Your task to perform on an android device: set default search engine in the chrome app Image 0: 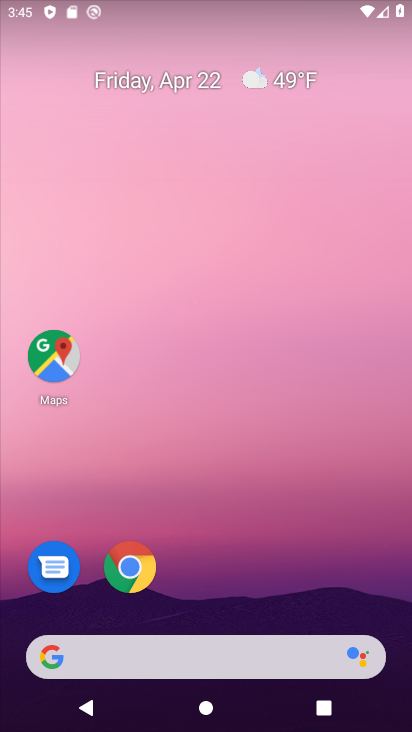
Step 0: click (130, 563)
Your task to perform on an android device: set default search engine in the chrome app Image 1: 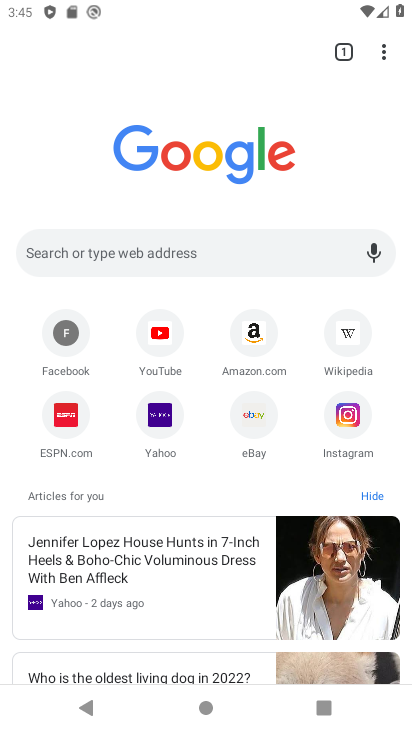
Step 1: drag from (386, 55) to (243, 500)
Your task to perform on an android device: set default search engine in the chrome app Image 2: 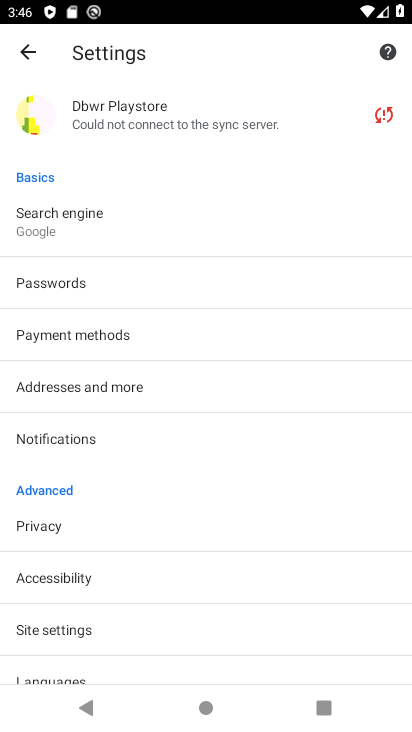
Step 2: click (40, 217)
Your task to perform on an android device: set default search engine in the chrome app Image 3: 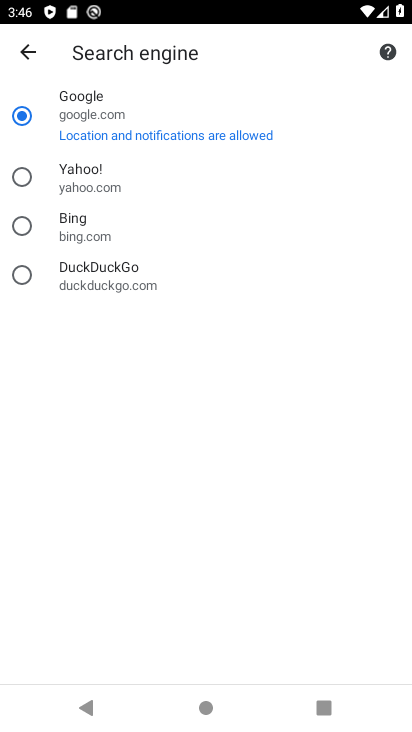
Step 3: click (21, 178)
Your task to perform on an android device: set default search engine in the chrome app Image 4: 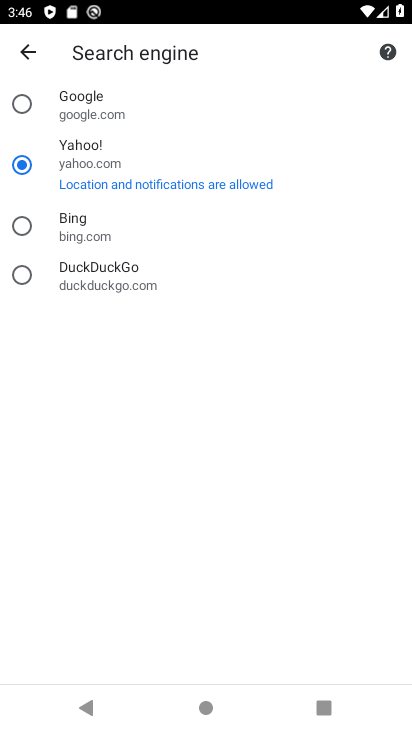
Step 4: task complete